Your task to perform on an android device: Open battery settings Image 0: 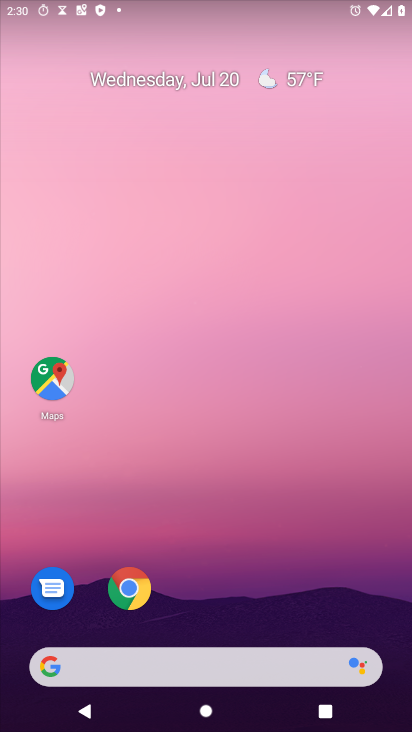
Step 0: drag from (185, 662) to (218, 40)
Your task to perform on an android device: Open battery settings Image 1: 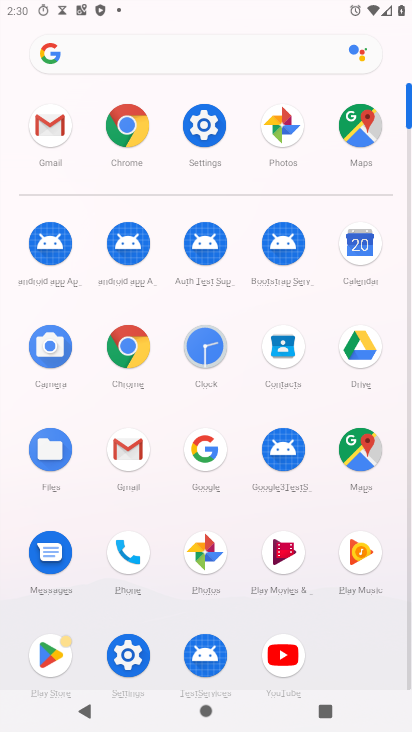
Step 1: click (212, 126)
Your task to perform on an android device: Open battery settings Image 2: 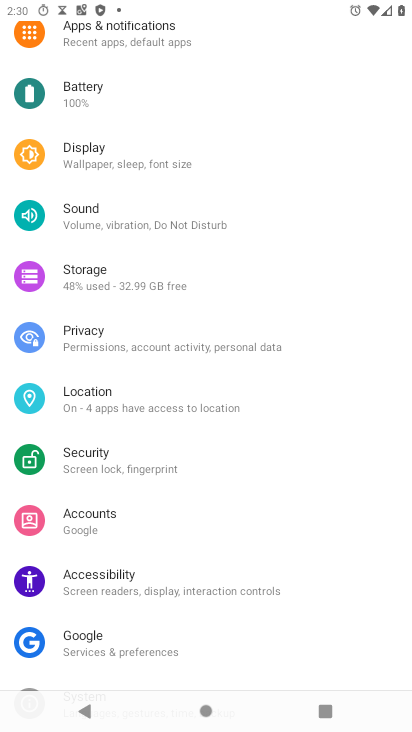
Step 2: click (150, 98)
Your task to perform on an android device: Open battery settings Image 3: 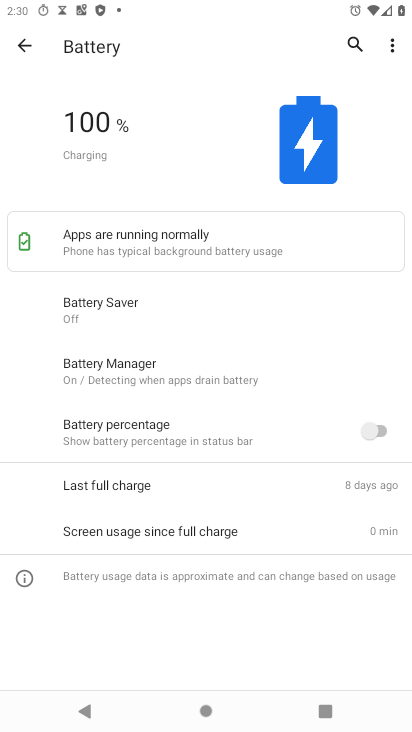
Step 3: task complete